Your task to perform on an android device: What is the recent news? Image 0: 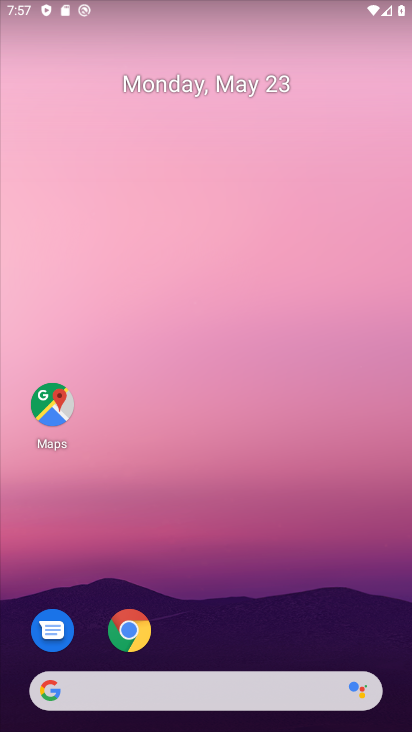
Step 0: click (163, 686)
Your task to perform on an android device: What is the recent news? Image 1: 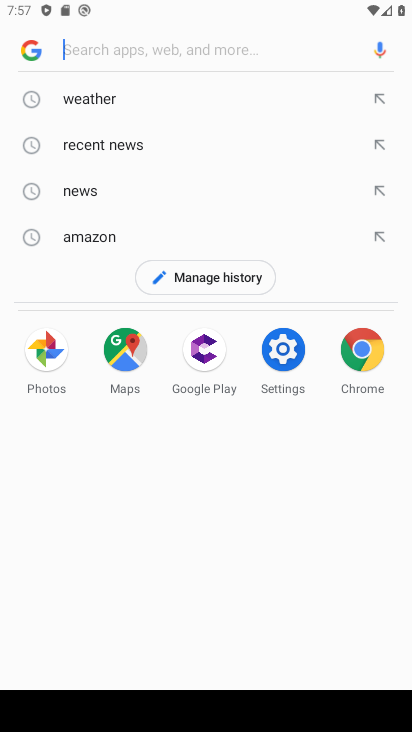
Step 1: click (101, 184)
Your task to perform on an android device: What is the recent news? Image 2: 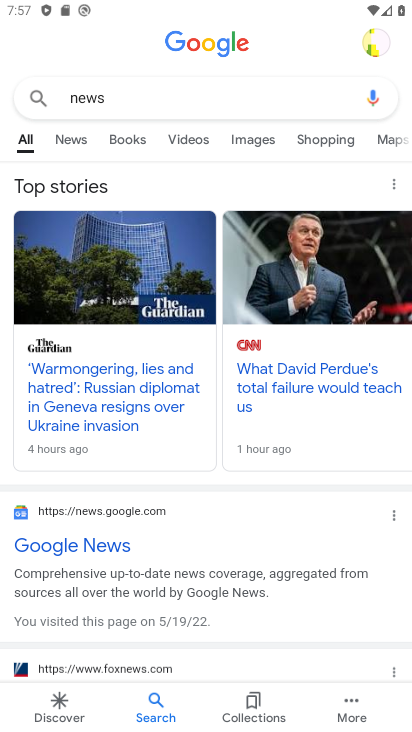
Step 2: task complete